Your task to perform on an android device: Open Google Image 0: 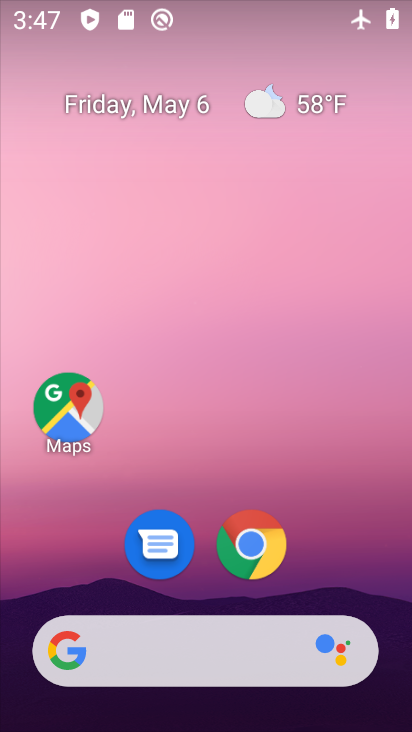
Step 0: drag from (190, 619) to (297, 78)
Your task to perform on an android device: Open Google Image 1: 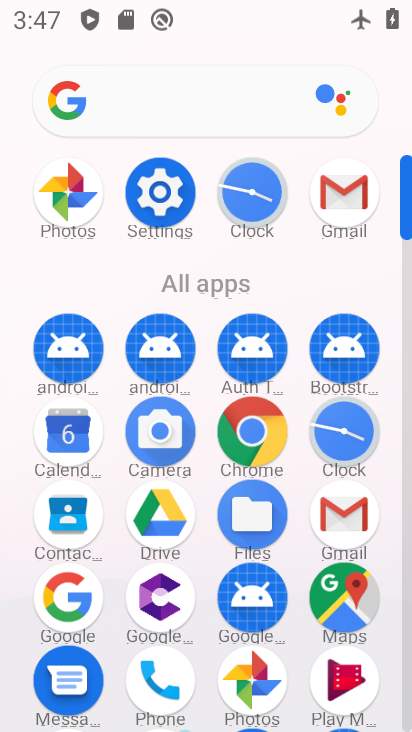
Step 1: click (66, 591)
Your task to perform on an android device: Open Google Image 2: 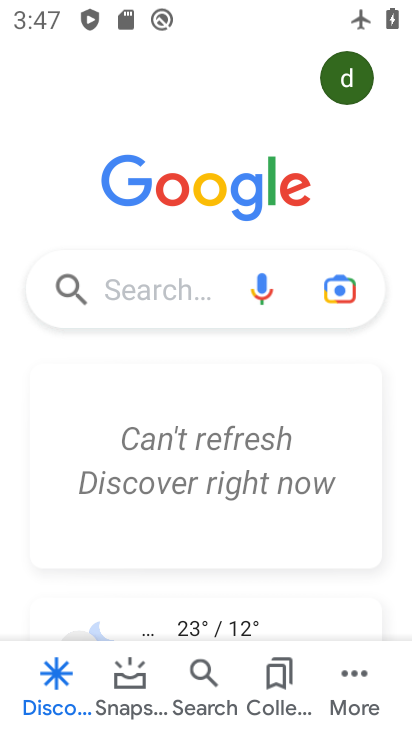
Step 2: task complete